Your task to perform on an android device: turn on javascript in the chrome app Image 0: 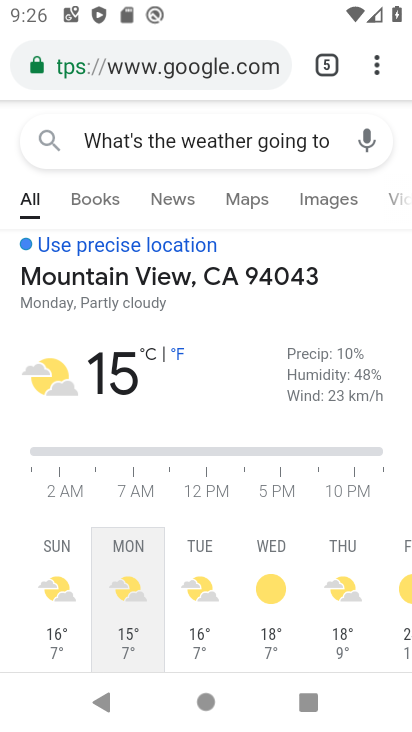
Step 0: press home button
Your task to perform on an android device: turn on javascript in the chrome app Image 1: 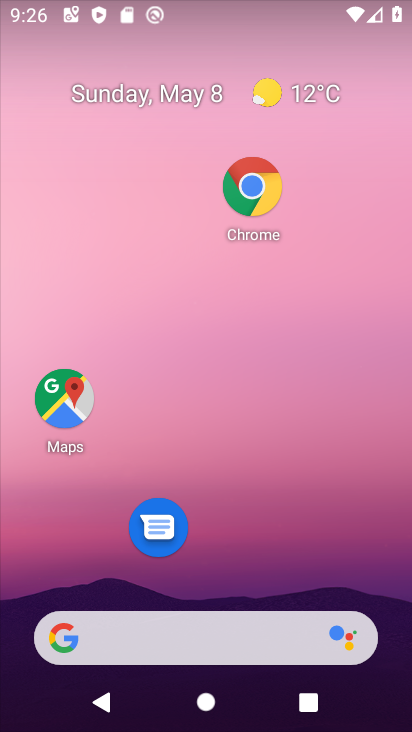
Step 1: drag from (303, 271) to (303, 219)
Your task to perform on an android device: turn on javascript in the chrome app Image 2: 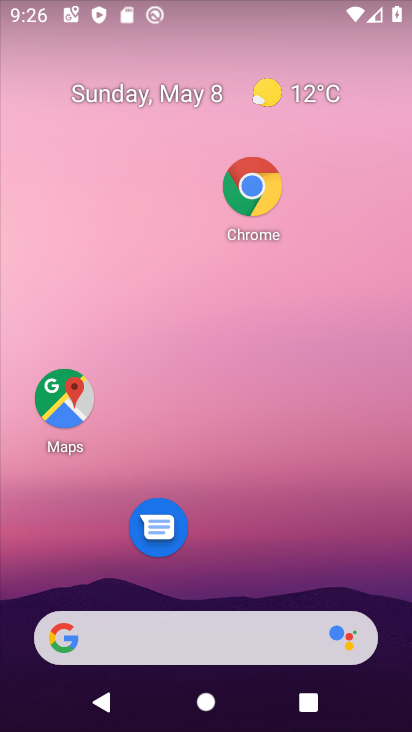
Step 2: drag from (236, 505) to (313, 176)
Your task to perform on an android device: turn on javascript in the chrome app Image 3: 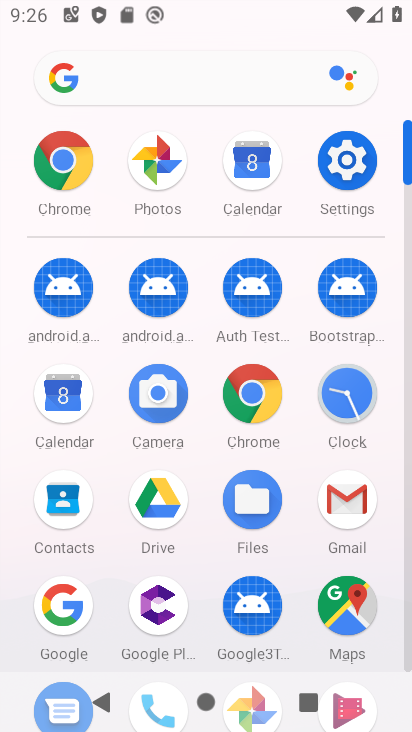
Step 3: click (243, 390)
Your task to perform on an android device: turn on javascript in the chrome app Image 4: 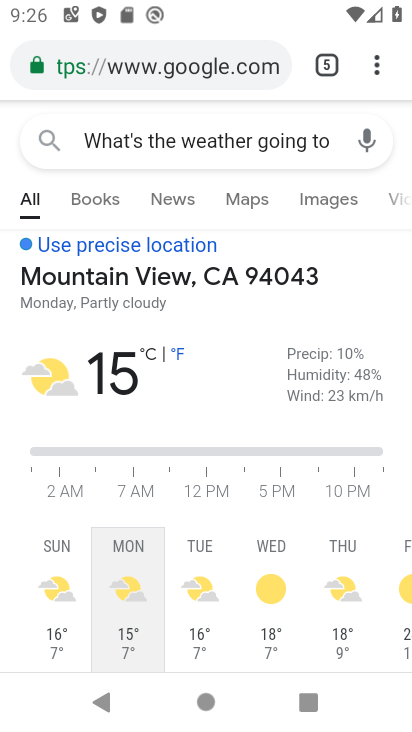
Step 4: click (370, 61)
Your task to perform on an android device: turn on javascript in the chrome app Image 5: 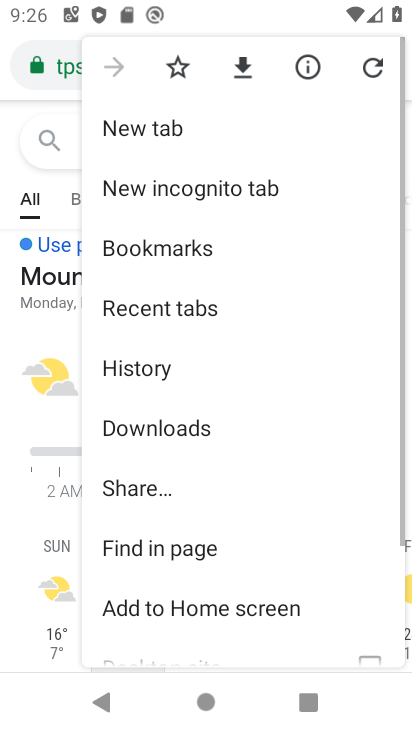
Step 5: drag from (174, 577) to (225, 182)
Your task to perform on an android device: turn on javascript in the chrome app Image 6: 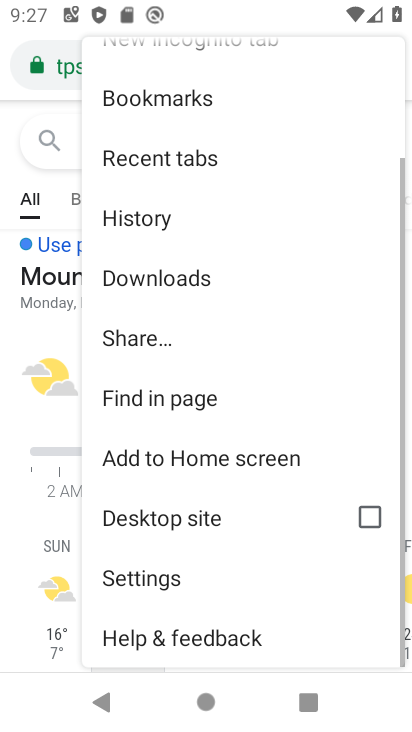
Step 6: click (132, 567)
Your task to perform on an android device: turn on javascript in the chrome app Image 7: 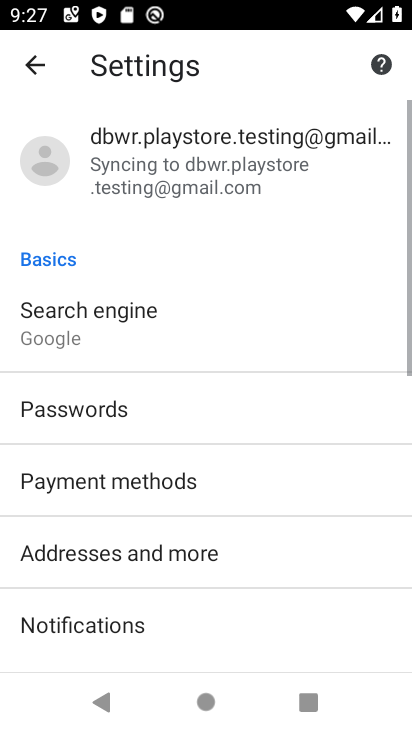
Step 7: drag from (116, 642) to (245, 253)
Your task to perform on an android device: turn on javascript in the chrome app Image 8: 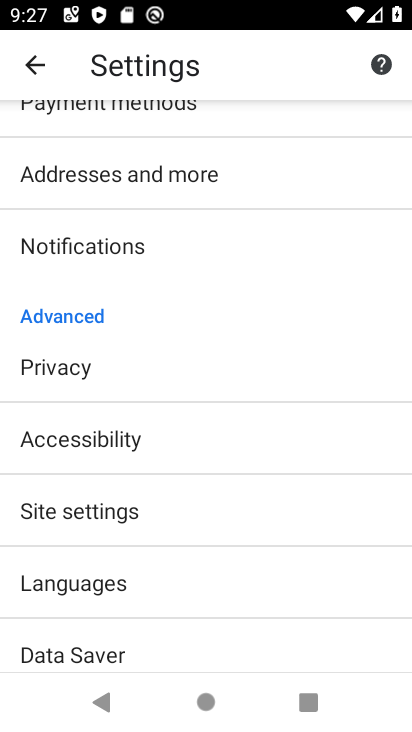
Step 8: click (130, 516)
Your task to perform on an android device: turn on javascript in the chrome app Image 9: 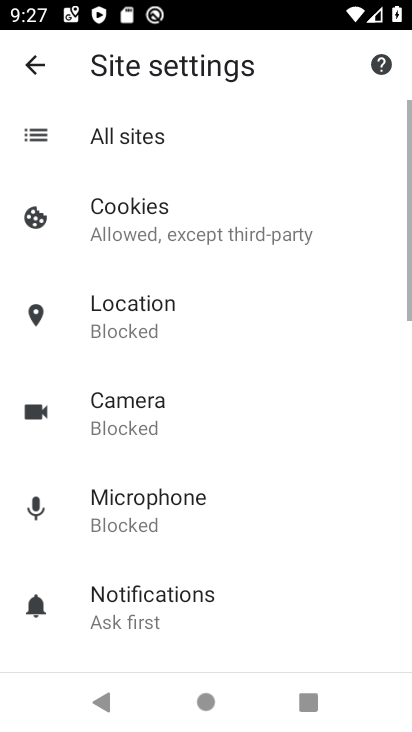
Step 9: drag from (187, 557) to (239, 222)
Your task to perform on an android device: turn on javascript in the chrome app Image 10: 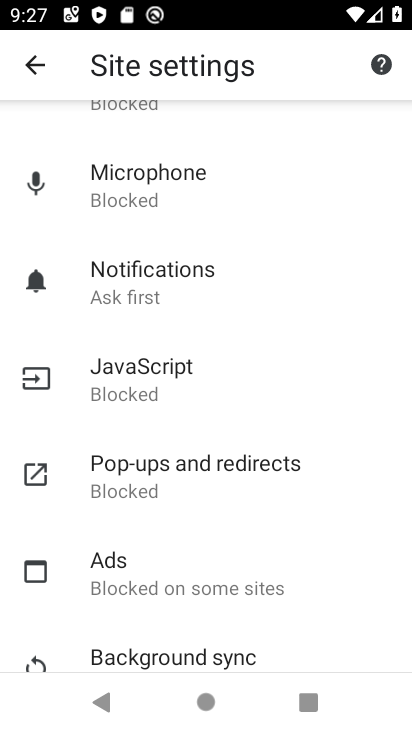
Step 10: click (147, 351)
Your task to perform on an android device: turn on javascript in the chrome app Image 11: 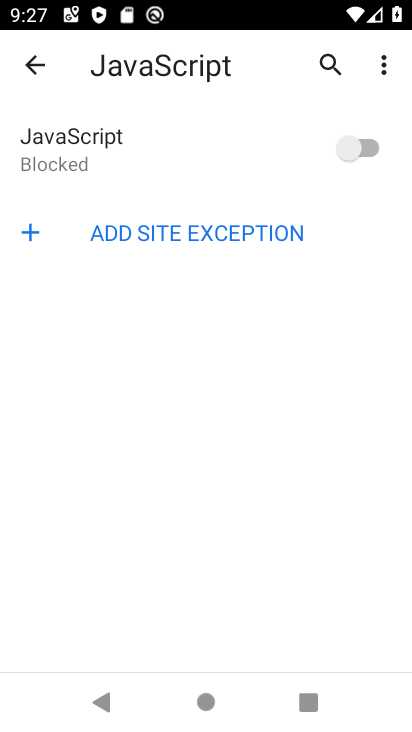
Step 11: click (357, 144)
Your task to perform on an android device: turn on javascript in the chrome app Image 12: 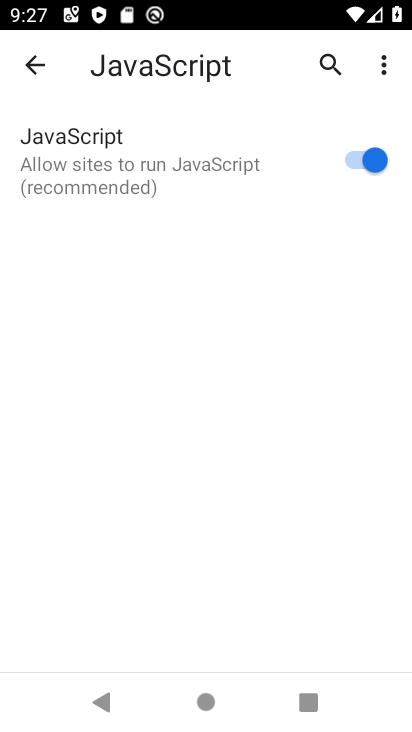
Step 12: task complete